Your task to perform on an android device: toggle translation in the chrome app Image 0: 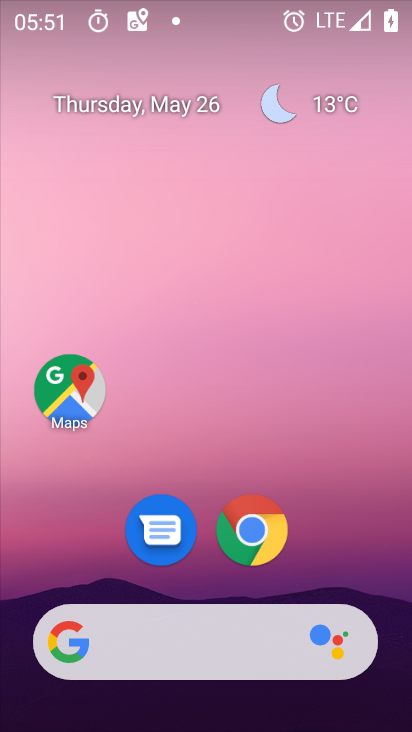
Step 0: drag from (309, 584) to (369, 19)
Your task to perform on an android device: toggle translation in the chrome app Image 1: 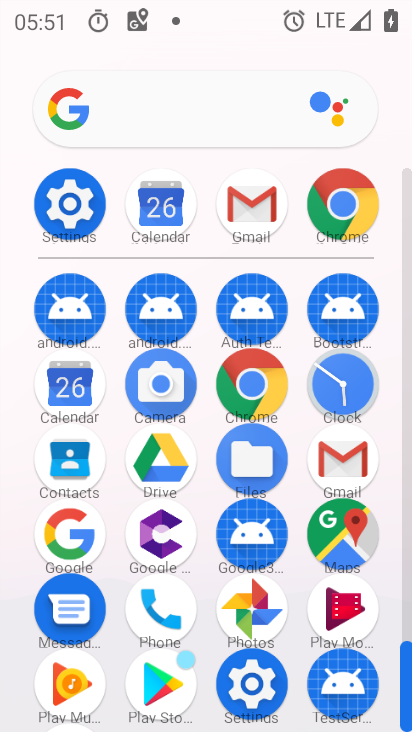
Step 1: click (270, 388)
Your task to perform on an android device: toggle translation in the chrome app Image 2: 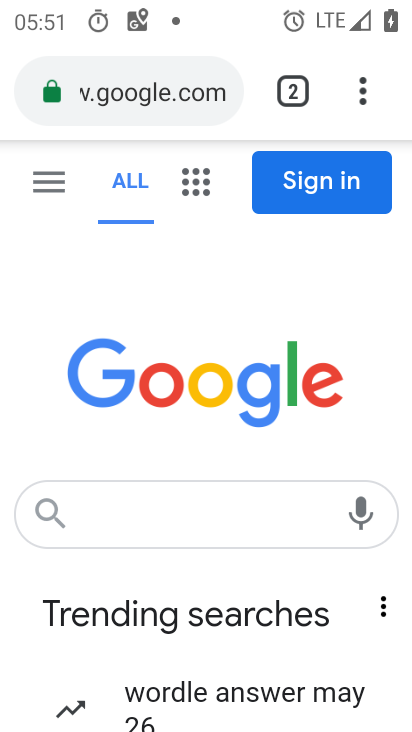
Step 2: drag from (348, 84) to (137, 552)
Your task to perform on an android device: toggle translation in the chrome app Image 3: 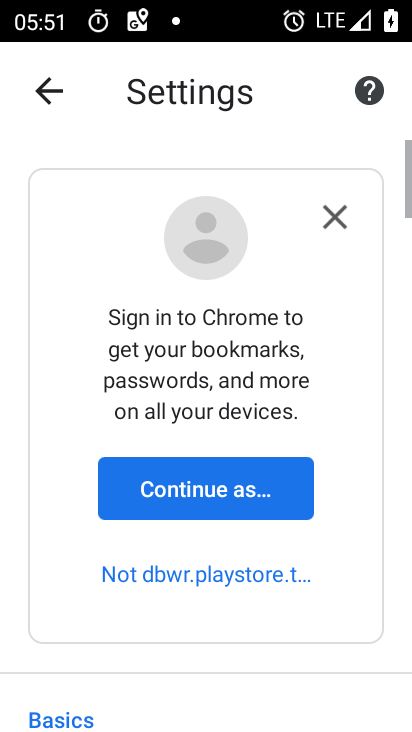
Step 3: drag from (205, 626) to (234, 132)
Your task to perform on an android device: toggle translation in the chrome app Image 4: 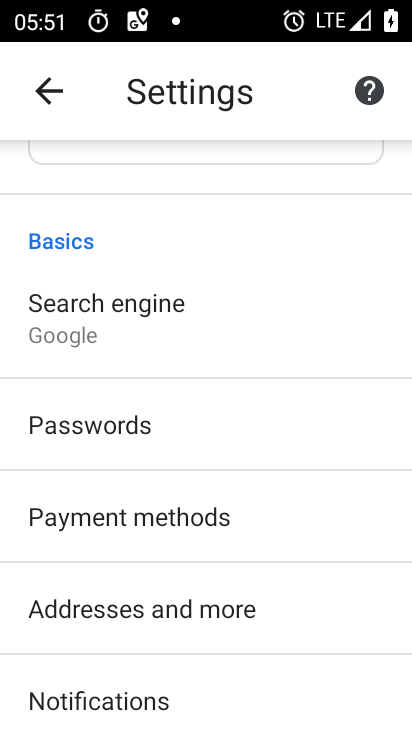
Step 4: drag from (298, 632) to (317, 178)
Your task to perform on an android device: toggle translation in the chrome app Image 5: 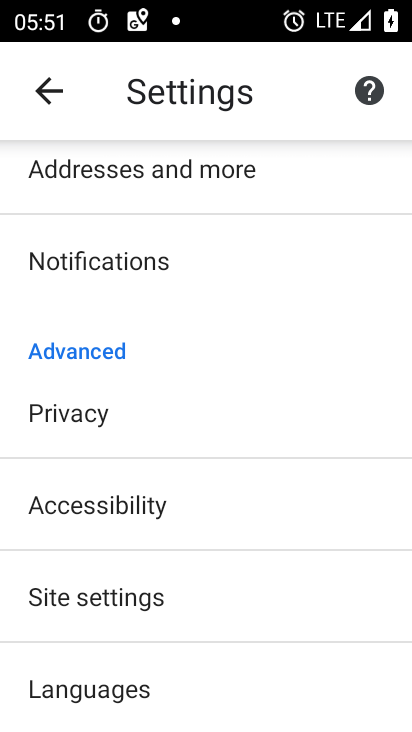
Step 5: click (181, 692)
Your task to perform on an android device: toggle translation in the chrome app Image 6: 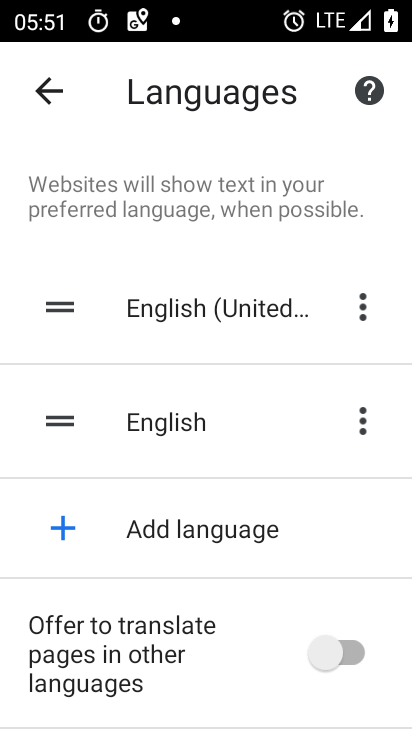
Step 6: drag from (221, 686) to (228, 412)
Your task to perform on an android device: toggle translation in the chrome app Image 7: 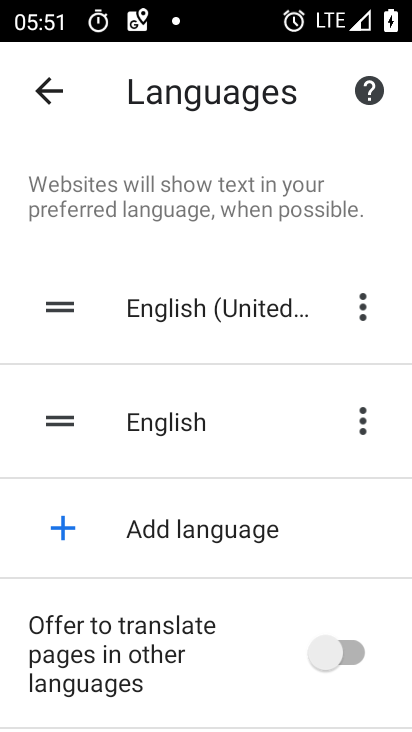
Step 7: click (341, 647)
Your task to perform on an android device: toggle translation in the chrome app Image 8: 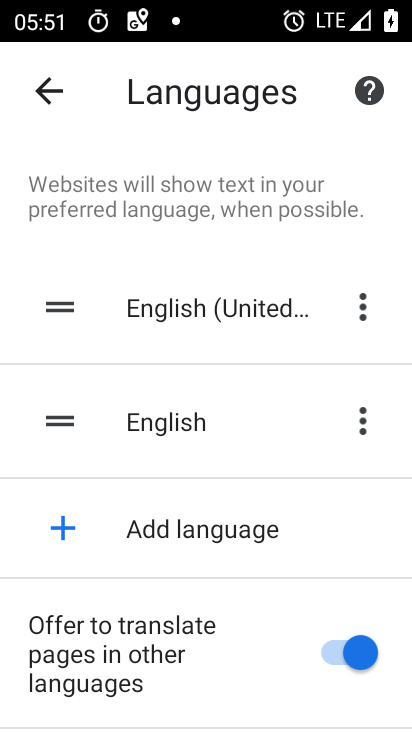
Step 8: task complete